Your task to perform on an android device: turn on improve location accuracy Image 0: 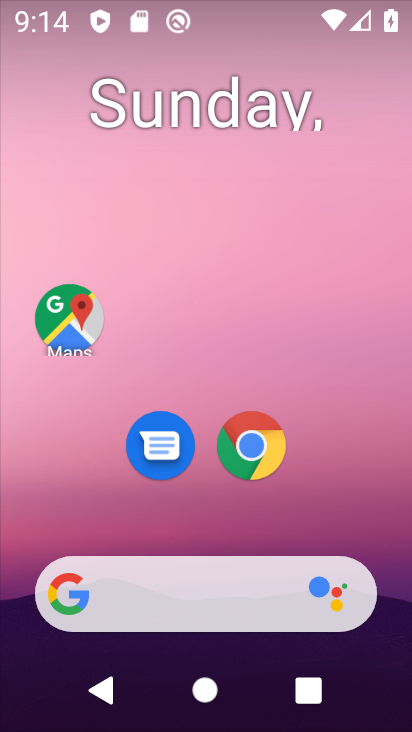
Step 0: drag from (91, 540) to (198, 70)
Your task to perform on an android device: turn on improve location accuracy Image 1: 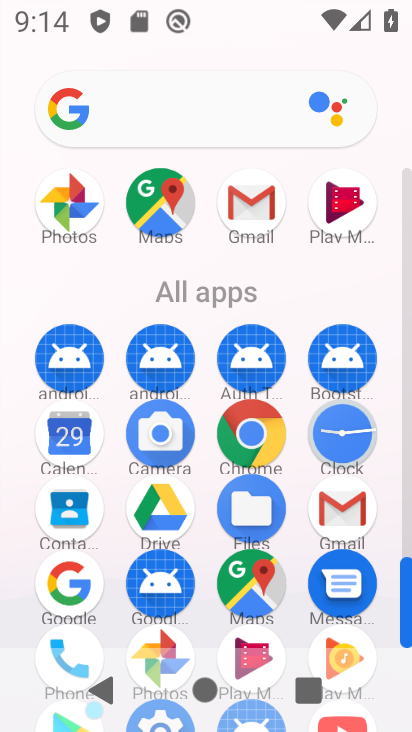
Step 1: drag from (169, 605) to (275, 352)
Your task to perform on an android device: turn on improve location accuracy Image 2: 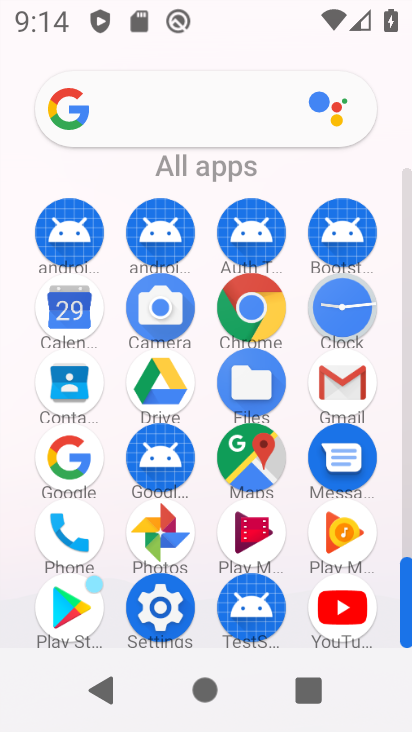
Step 2: click (167, 618)
Your task to perform on an android device: turn on improve location accuracy Image 3: 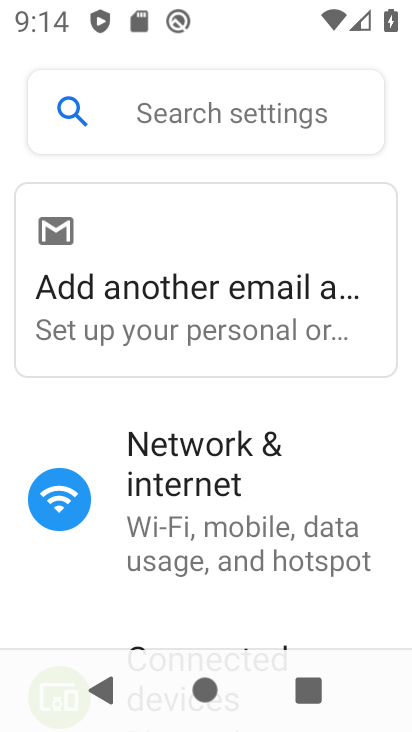
Step 3: drag from (189, 590) to (330, 34)
Your task to perform on an android device: turn on improve location accuracy Image 4: 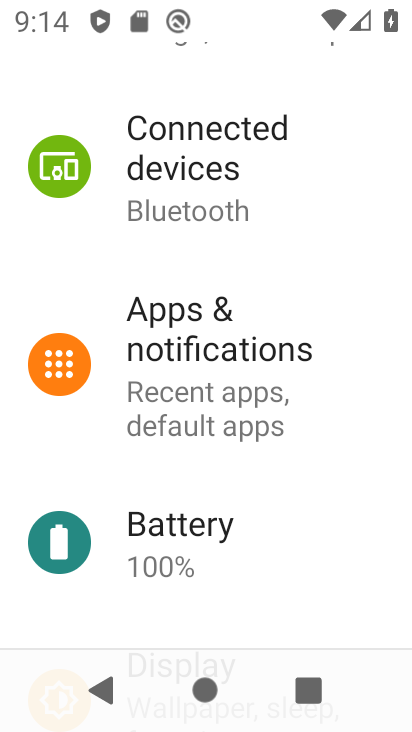
Step 4: drag from (171, 543) to (292, 166)
Your task to perform on an android device: turn on improve location accuracy Image 5: 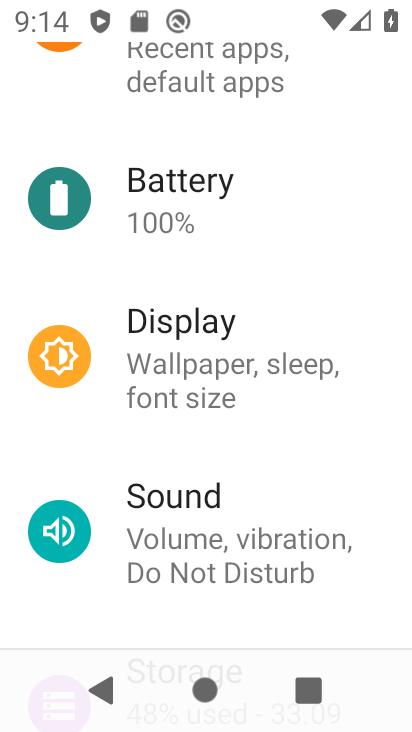
Step 5: drag from (197, 575) to (288, 241)
Your task to perform on an android device: turn on improve location accuracy Image 6: 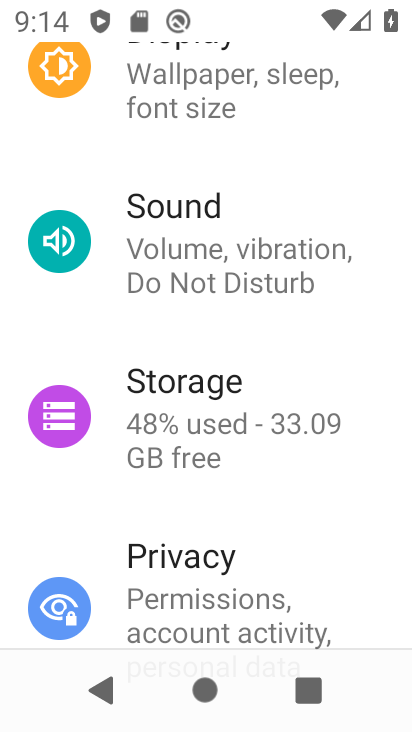
Step 6: drag from (207, 516) to (313, 244)
Your task to perform on an android device: turn on improve location accuracy Image 7: 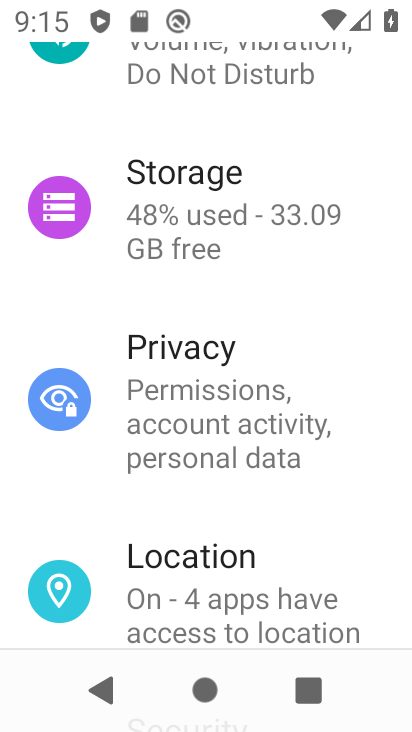
Step 7: click (188, 573)
Your task to perform on an android device: turn on improve location accuracy Image 8: 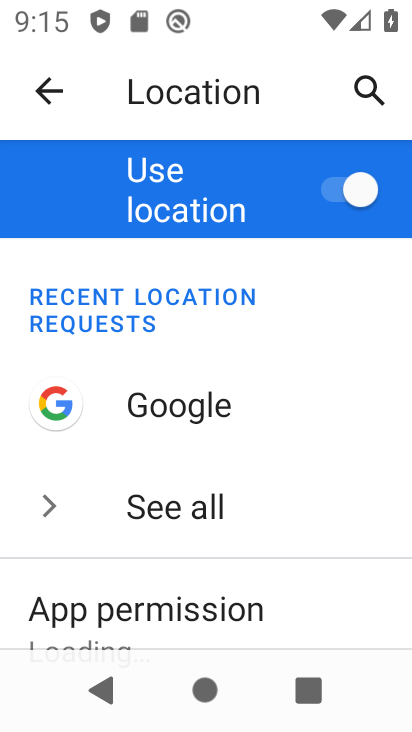
Step 8: drag from (243, 609) to (373, 262)
Your task to perform on an android device: turn on improve location accuracy Image 9: 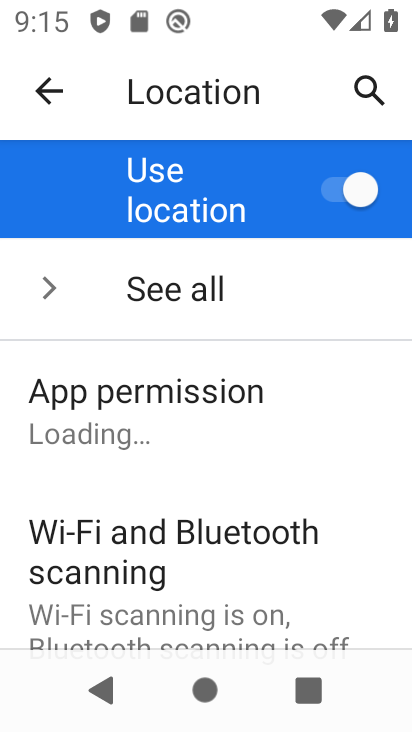
Step 9: drag from (204, 630) to (345, 275)
Your task to perform on an android device: turn on improve location accuracy Image 10: 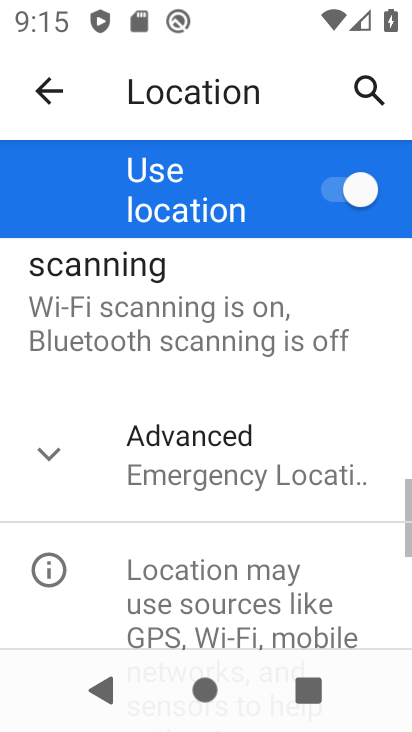
Step 10: click (253, 461)
Your task to perform on an android device: turn on improve location accuracy Image 11: 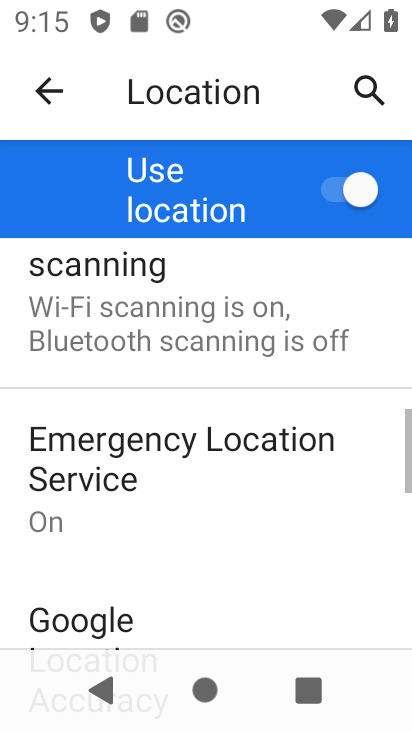
Step 11: drag from (224, 610) to (408, 224)
Your task to perform on an android device: turn on improve location accuracy Image 12: 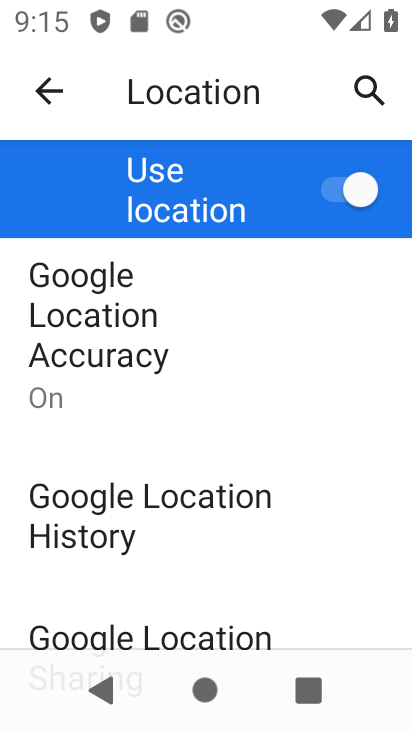
Step 12: click (180, 401)
Your task to perform on an android device: turn on improve location accuracy Image 13: 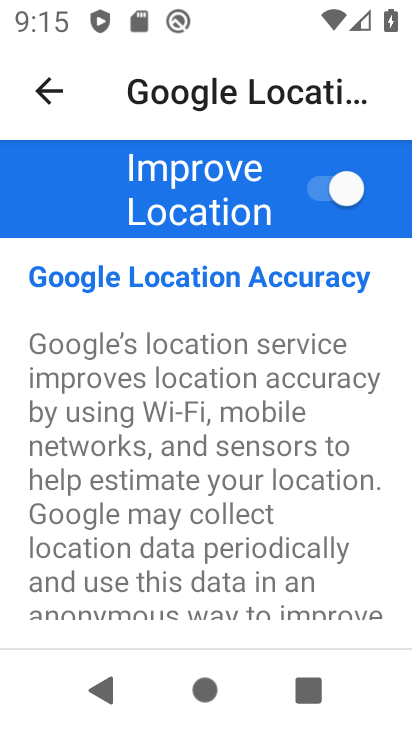
Step 13: task complete